Your task to perform on an android device: turn off priority inbox in the gmail app Image 0: 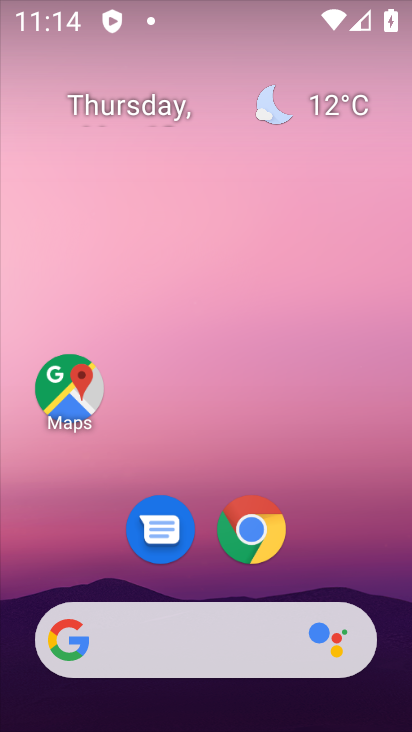
Step 0: drag from (337, 439) to (287, 200)
Your task to perform on an android device: turn off priority inbox in the gmail app Image 1: 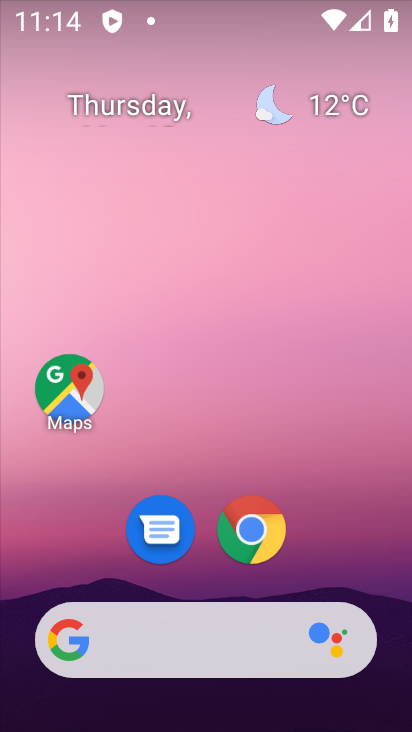
Step 1: drag from (296, 556) to (265, 189)
Your task to perform on an android device: turn off priority inbox in the gmail app Image 2: 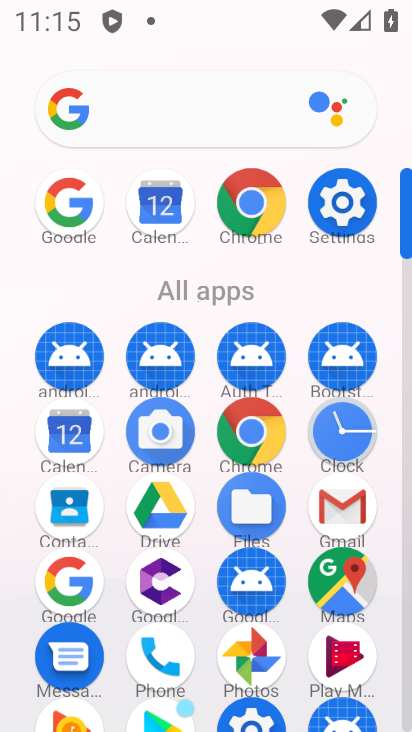
Step 2: click (343, 503)
Your task to perform on an android device: turn off priority inbox in the gmail app Image 3: 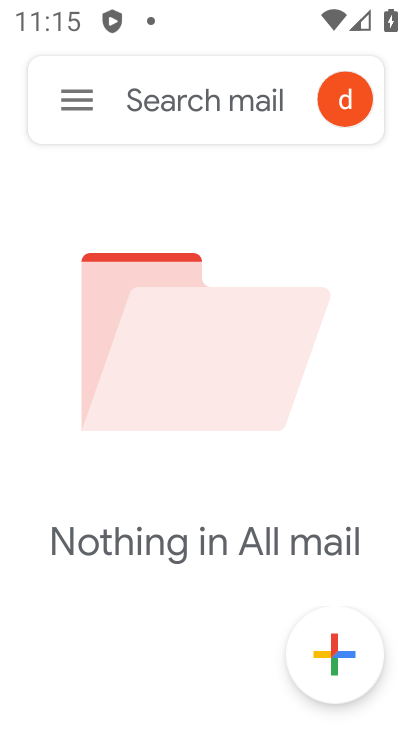
Step 3: click (73, 91)
Your task to perform on an android device: turn off priority inbox in the gmail app Image 4: 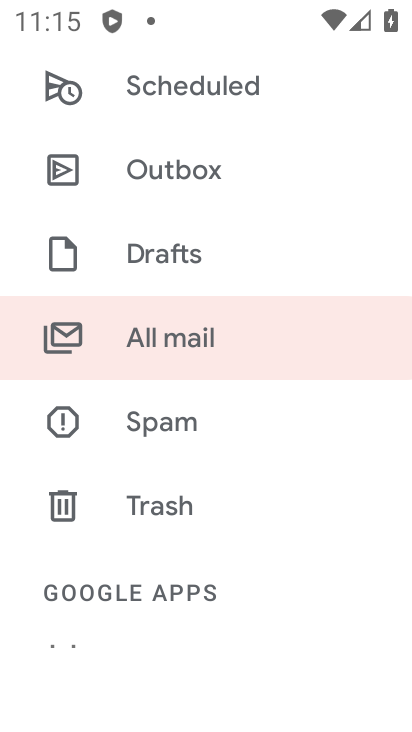
Step 4: drag from (187, 594) to (210, 155)
Your task to perform on an android device: turn off priority inbox in the gmail app Image 5: 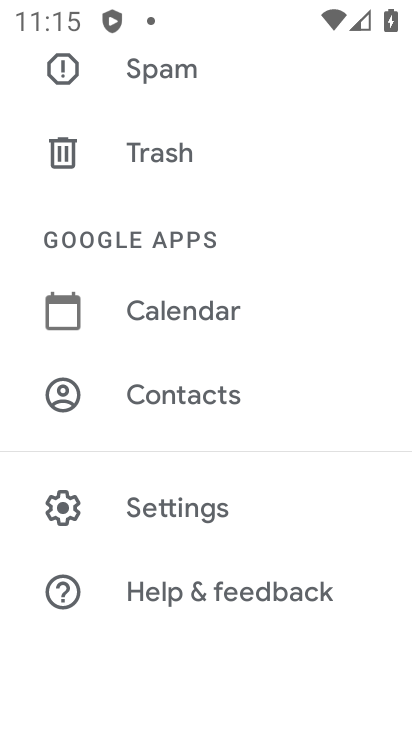
Step 5: click (166, 516)
Your task to perform on an android device: turn off priority inbox in the gmail app Image 6: 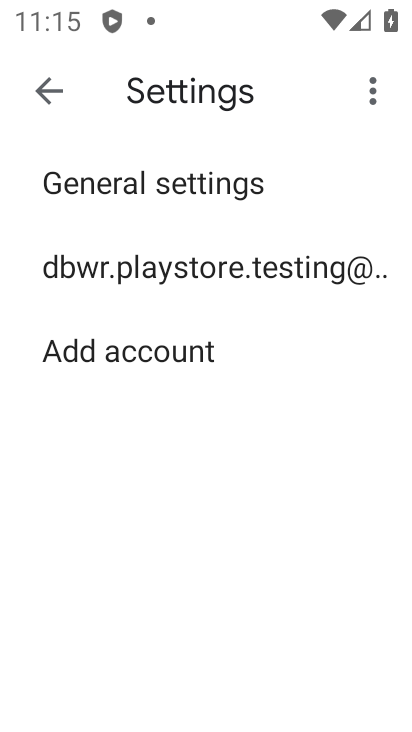
Step 6: click (80, 257)
Your task to perform on an android device: turn off priority inbox in the gmail app Image 7: 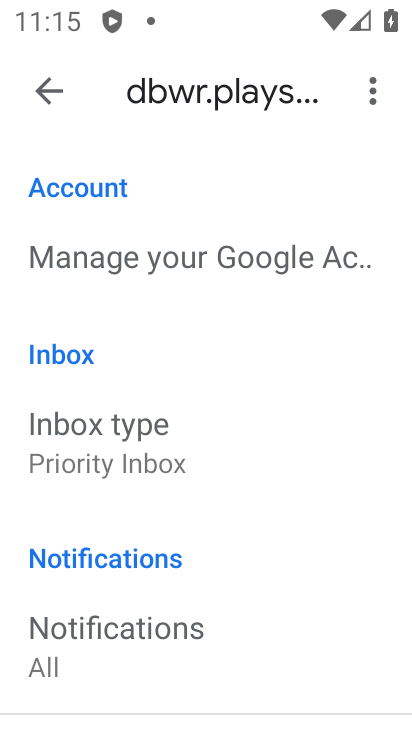
Step 7: click (134, 446)
Your task to perform on an android device: turn off priority inbox in the gmail app Image 8: 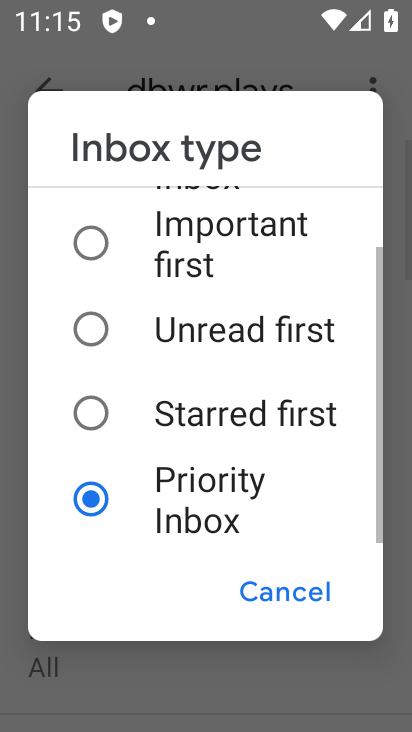
Step 8: drag from (211, 308) to (234, 623)
Your task to perform on an android device: turn off priority inbox in the gmail app Image 9: 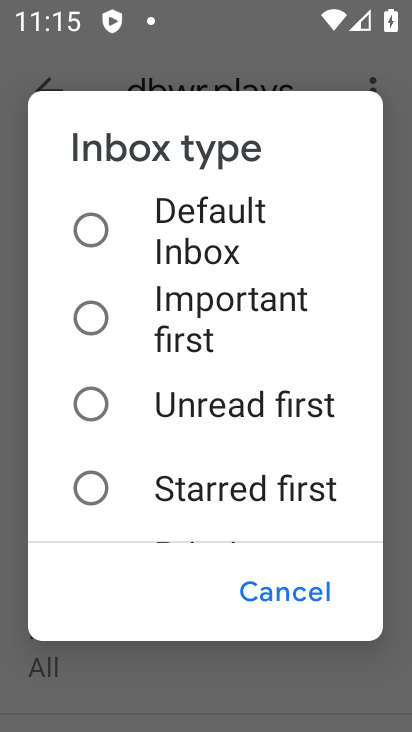
Step 9: click (224, 207)
Your task to perform on an android device: turn off priority inbox in the gmail app Image 10: 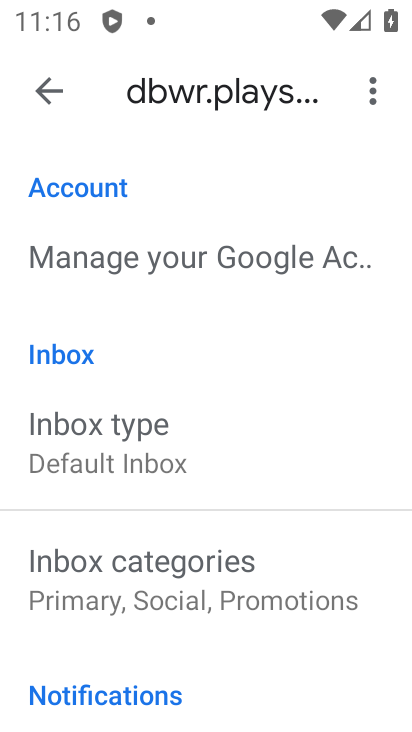
Step 10: task complete